Your task to perform on an android device: Search for "usb-c to usb-b" on target.com, select the first entry, and add it to the cart. Image 0: 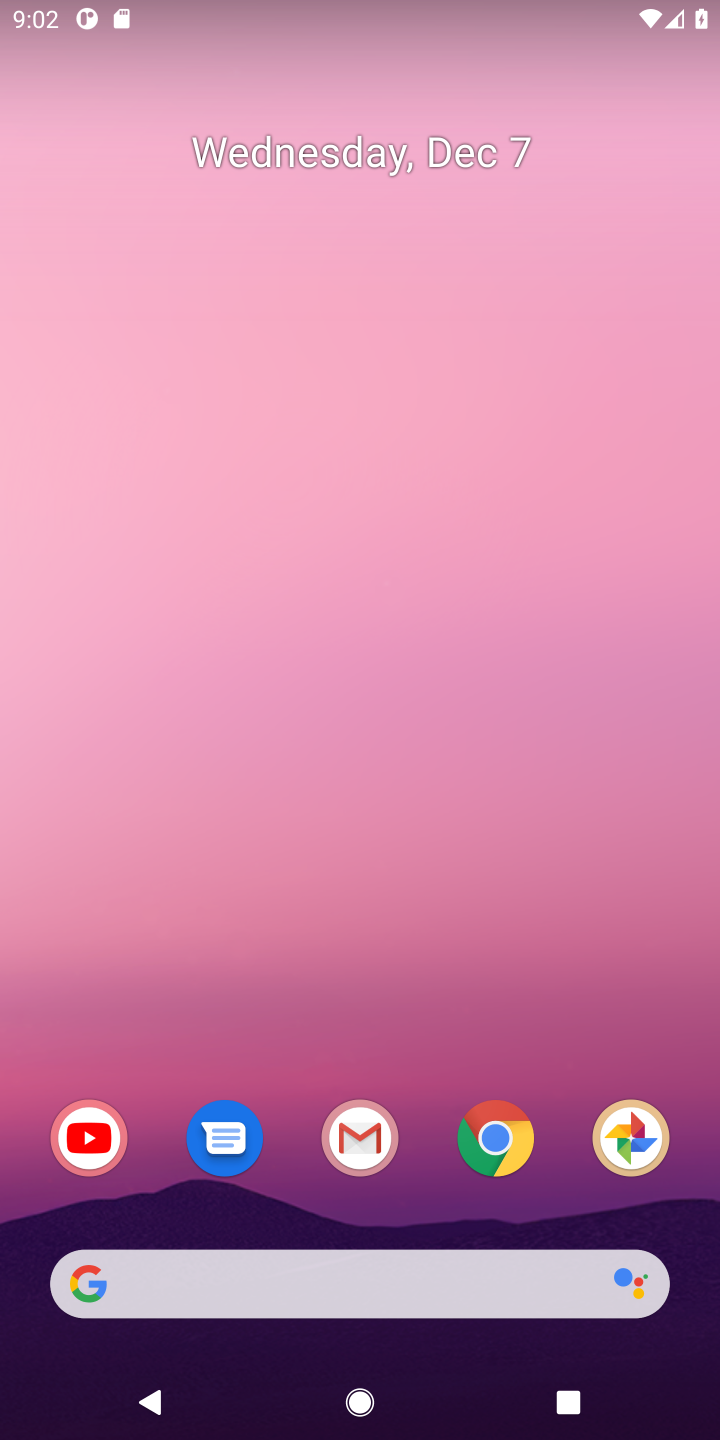
Step 0: press home button
Your task to perform on an android device: Search for "usb-c to usb-b" on target.com, select the first entry, and add it to the cart. Image 1: 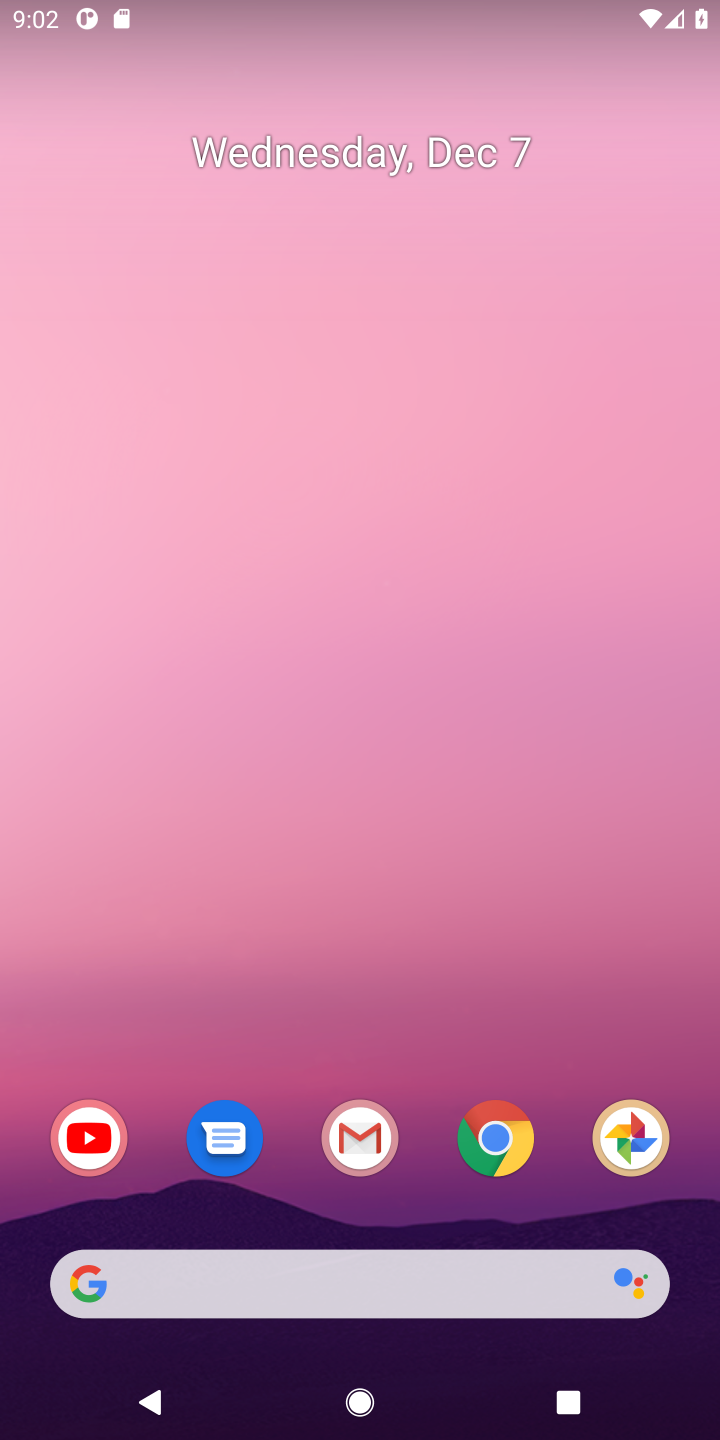
Step 1: click (125, 1297)
Your task to perform on an android device: Search for "usb-c to usb-b" on target.com, select the first entry, and add it to the cart. Image 2: 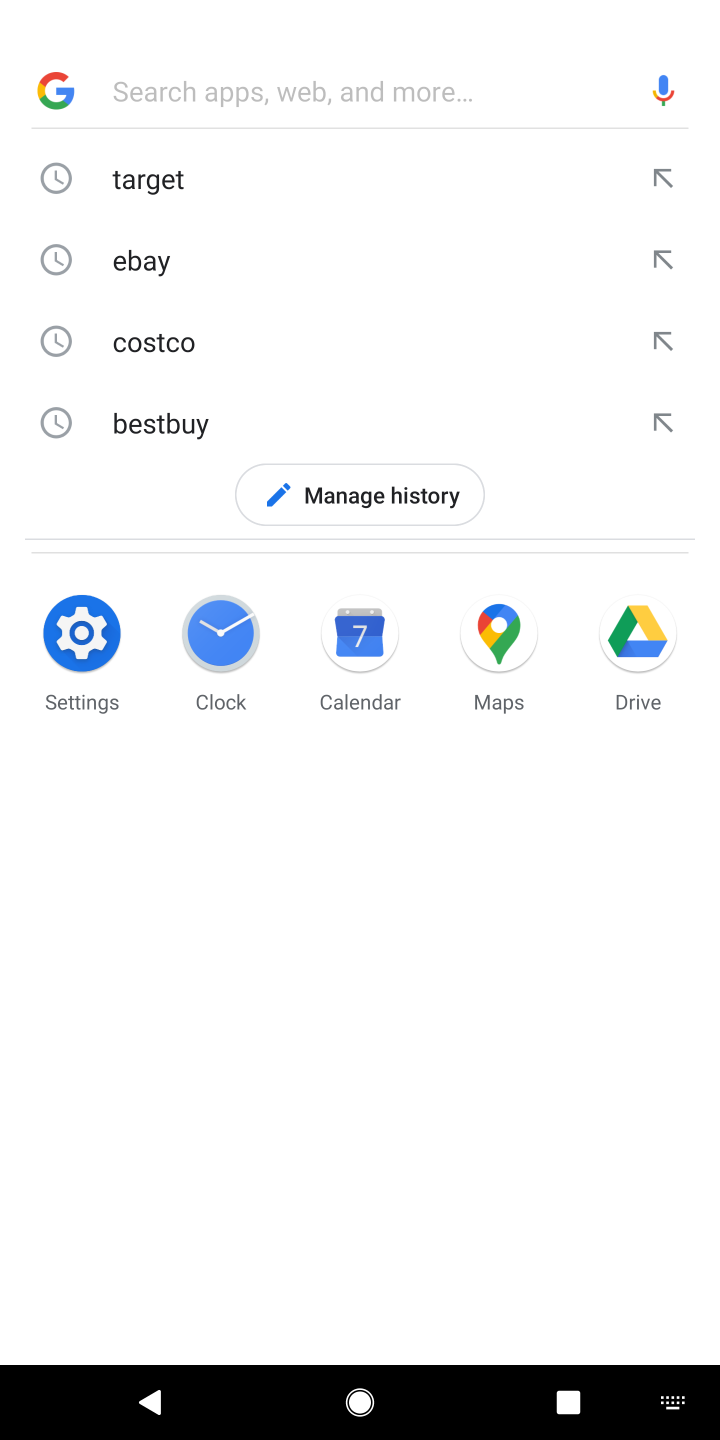
Step 2: type "target.com"
Your task to perform on an android device: Search for "usb-c to usb-b" on target.com, select the first entry, and add it to the cart. Image 3: 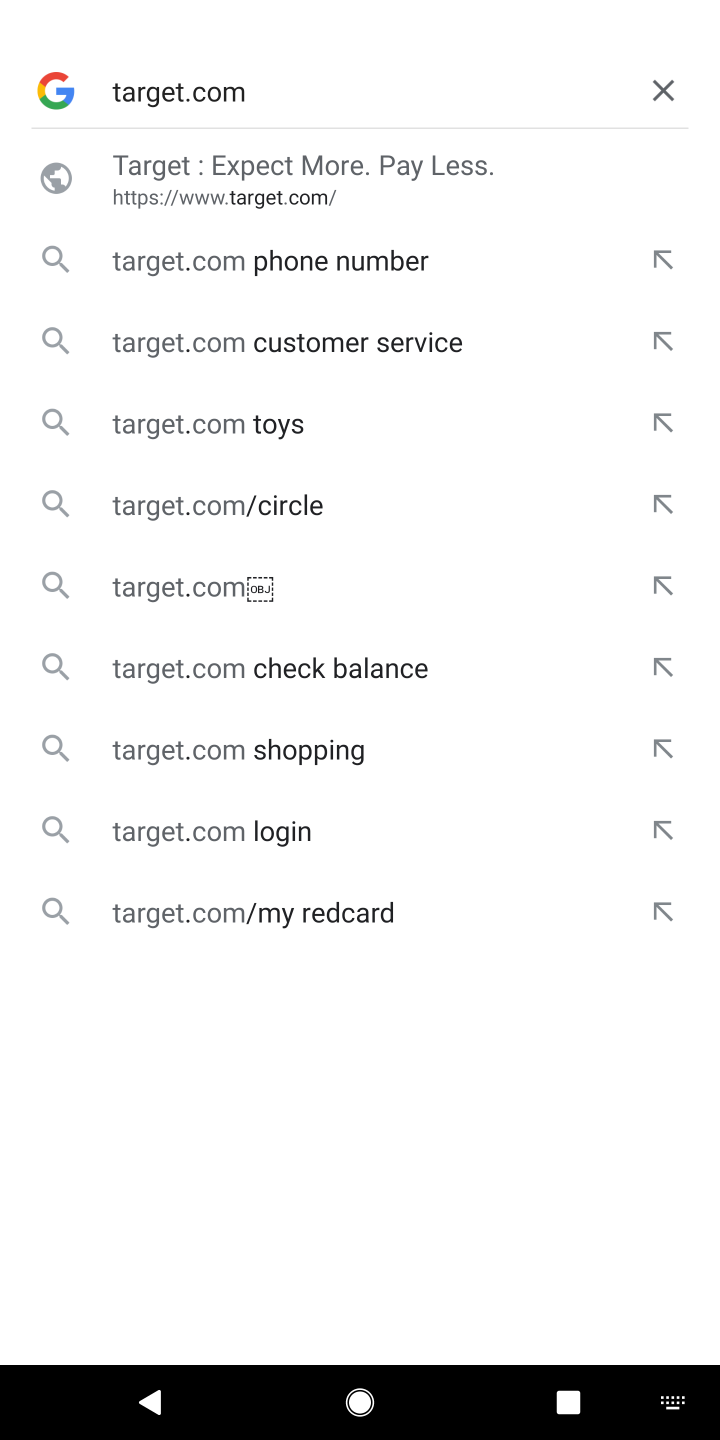
Step 3: press enter
Your task to perform on an android device: Search for "usb-c to usb-b" on target.com, select the first entry, and add it to the cart. Image 4: 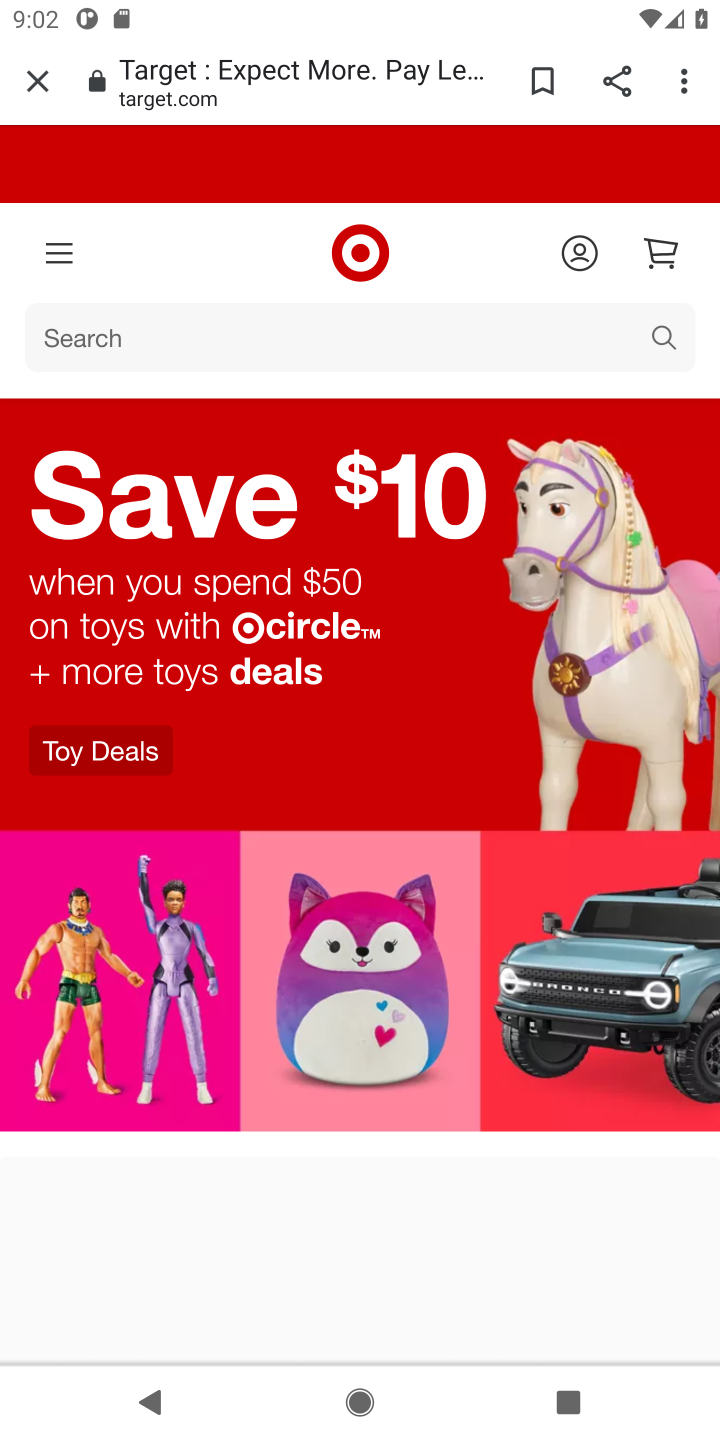
Step 4: click (108, 338)
Your task to perform on an android device: Search for "usb-c to usb-b" on target.com, select the first entry, and add it to the cart. Image 5: 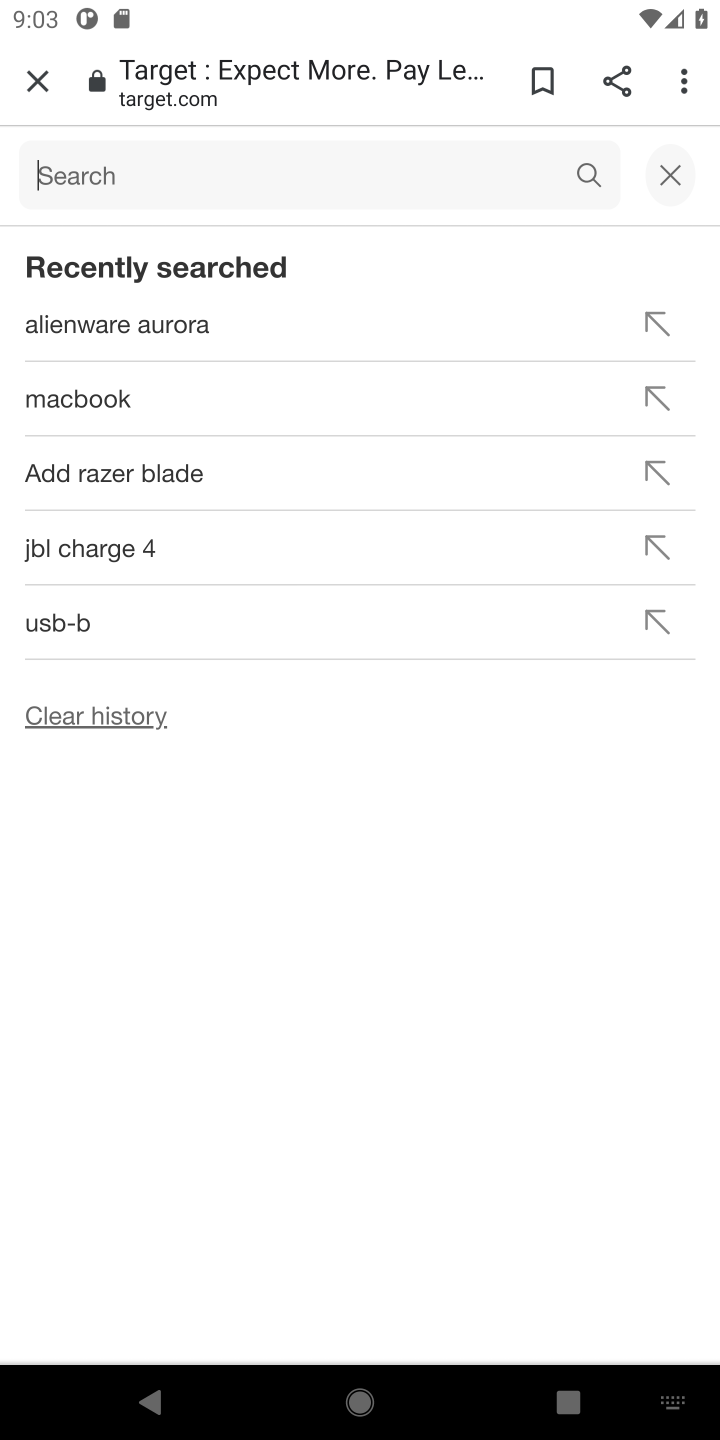
Step 5: type "usb-c to usb-b"
Your task to perform on an android device: Search for "usb-c to usb-b" on target.com, select the first entry, and add it to the cart. Image 6: 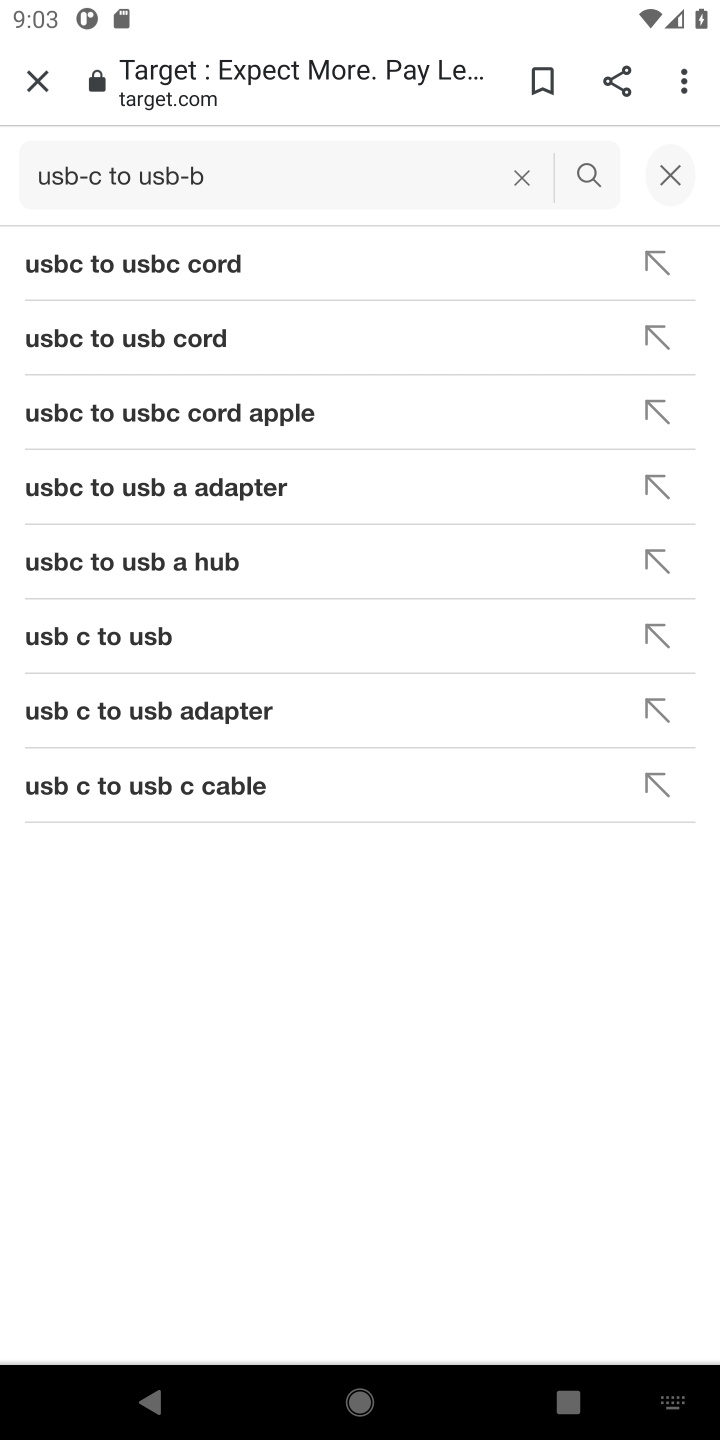
Step 6: click (586, 170)
Your task to perform on an android device: Search for "usb-c to usb-b" on target.com, select the first entry, and add it to the cart. Image 7: 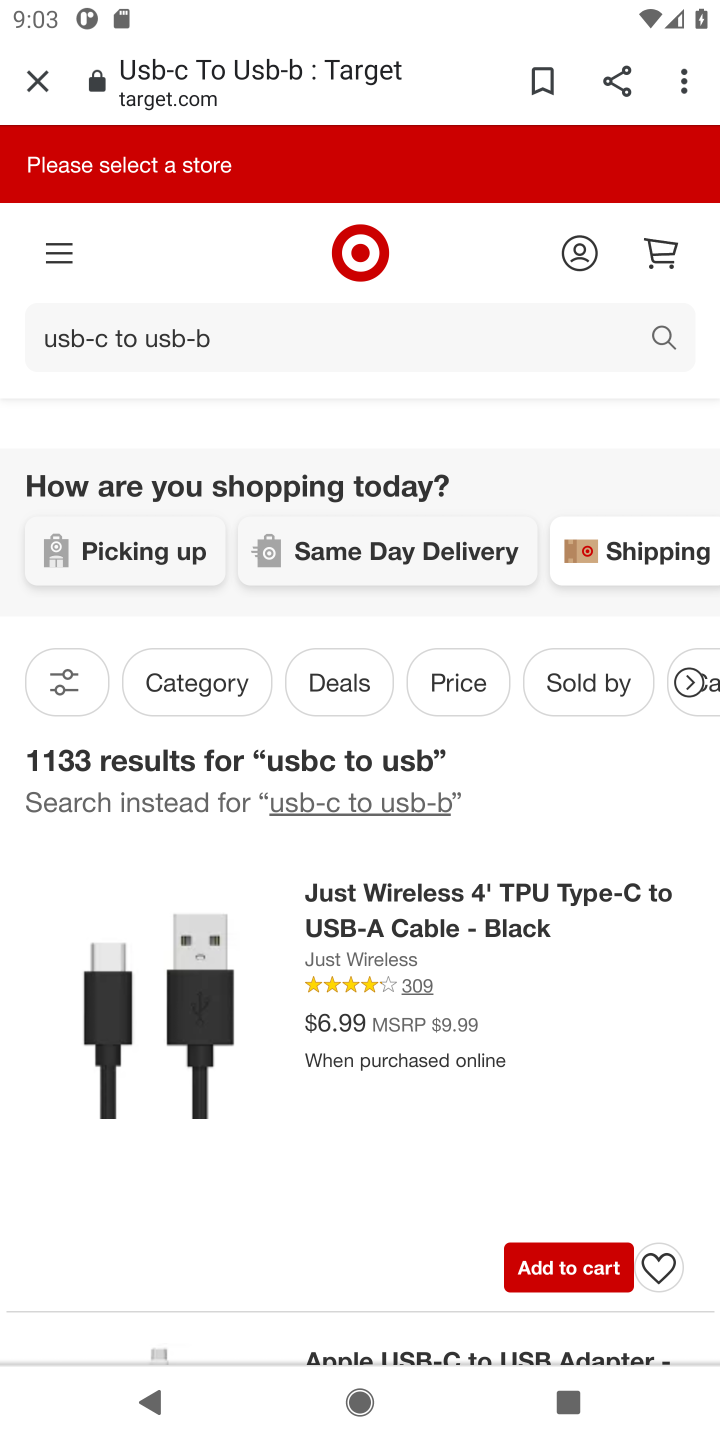
Step 7: task complete